Your task to perform on an android device: turn off sleep mode Image 0: 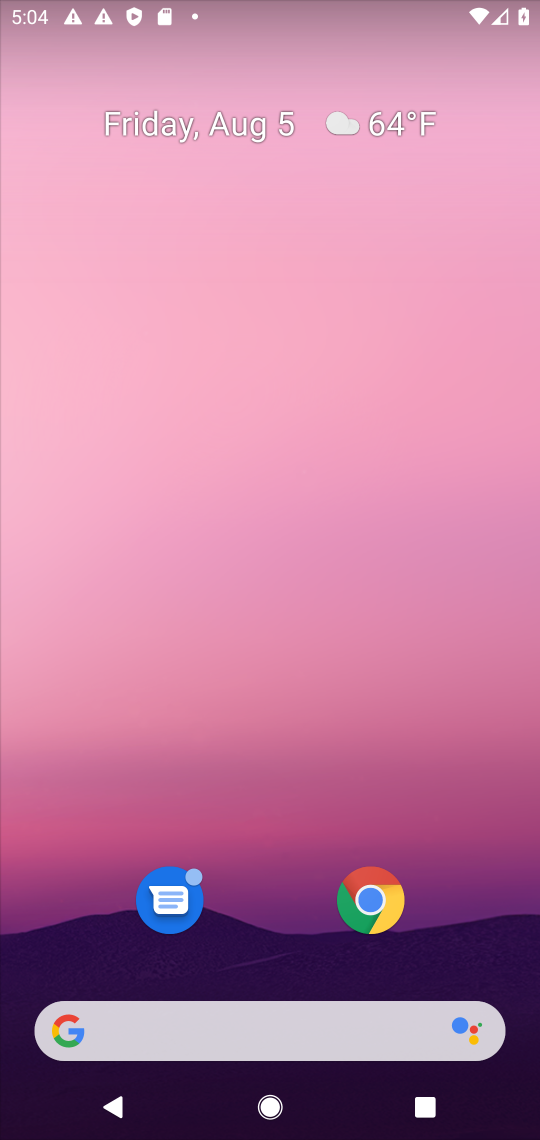
Step 0: drag from (243, 1042) to (310, 174)
Your task to perform on an android device: turn off sleep mode Image 1: 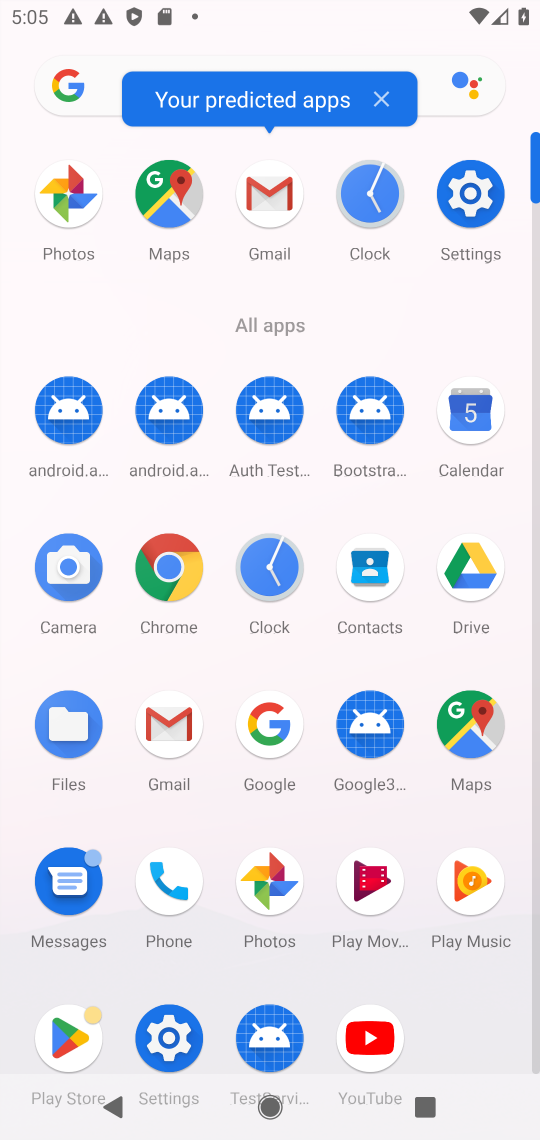
Step 1: click (480, 187)
Your task to perform on an android device: turn off sleep mode Image 2: 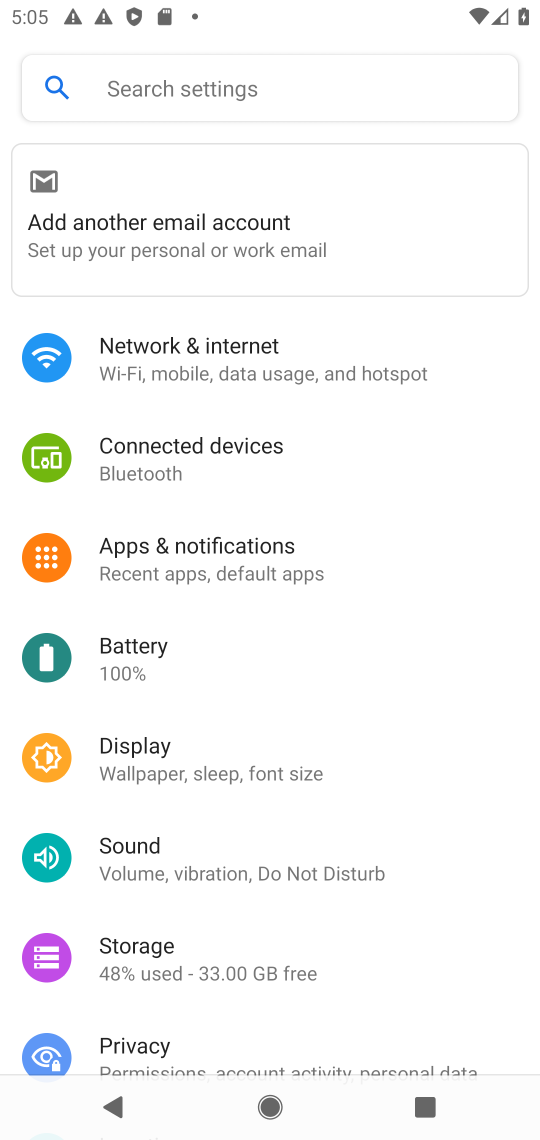
Step 2: click (176, 753)
Your task to perform on an android device: turn off sleep mode Image 3: 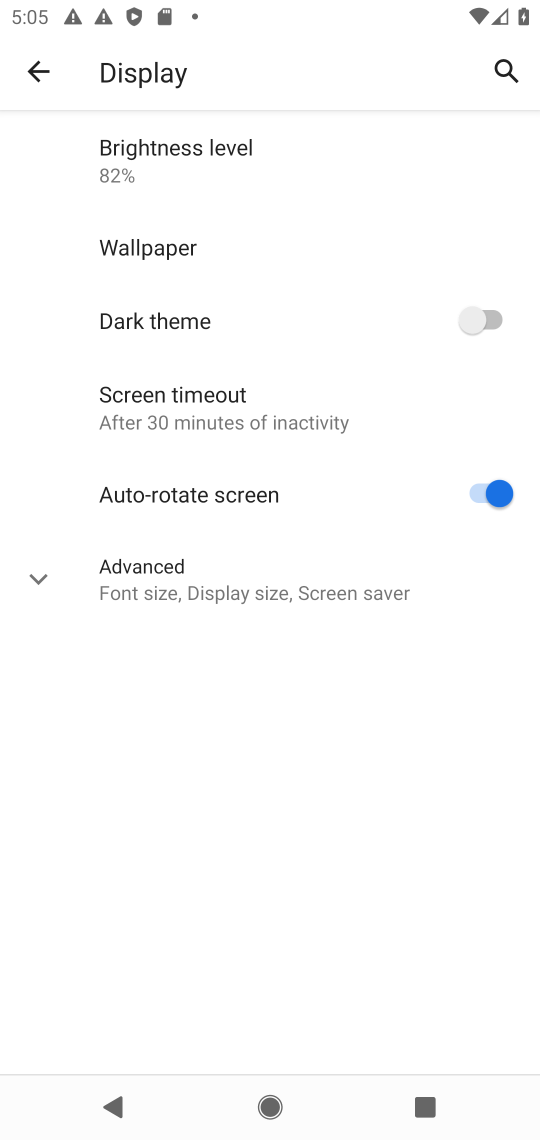
Step 3: click (205, 599)
Your task to perform on an android device: turn off sleep mode Image 4: 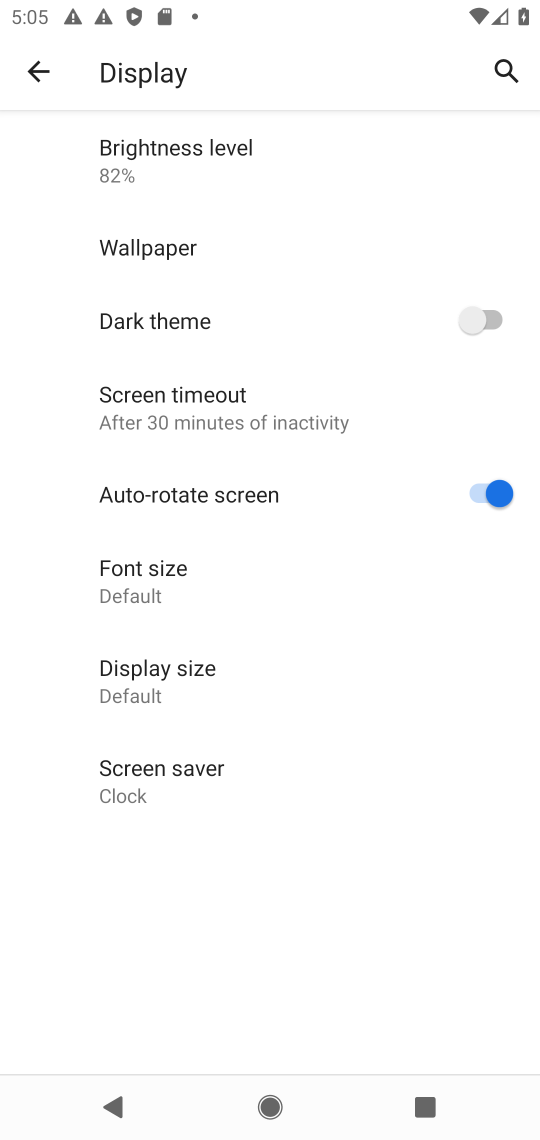
Step 4: task complete